Your task to perform on an android device: Go to privacy settings Image 0: 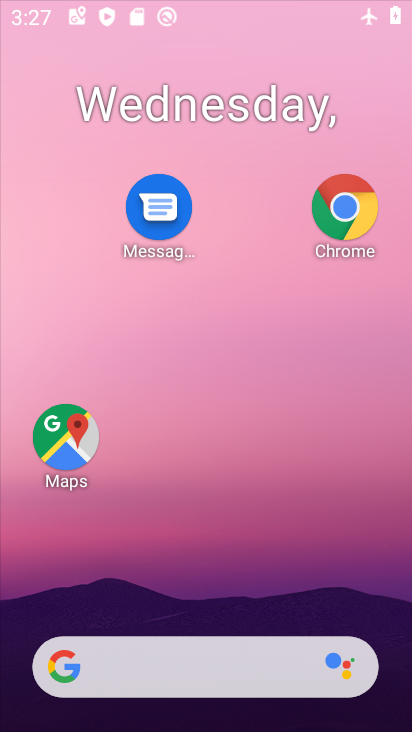
Step 0: click (228, 245)
Your task to perform on an android device: Go to privacy settings Image 1: 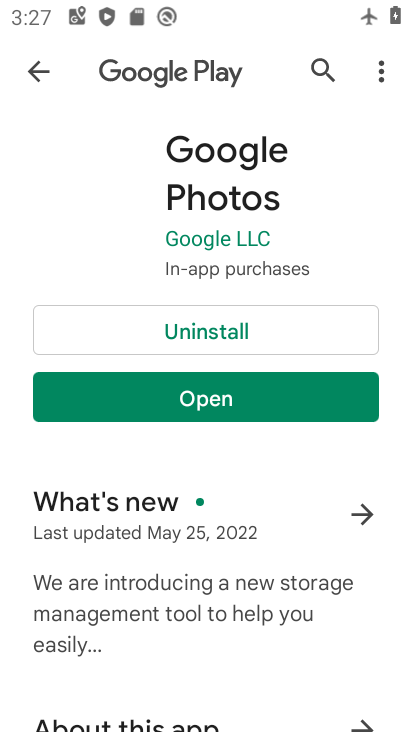
Step 1: drag from (221, 537) to (205, 168)
Your task to perform on an android device: Go to privacy settings Image 2: 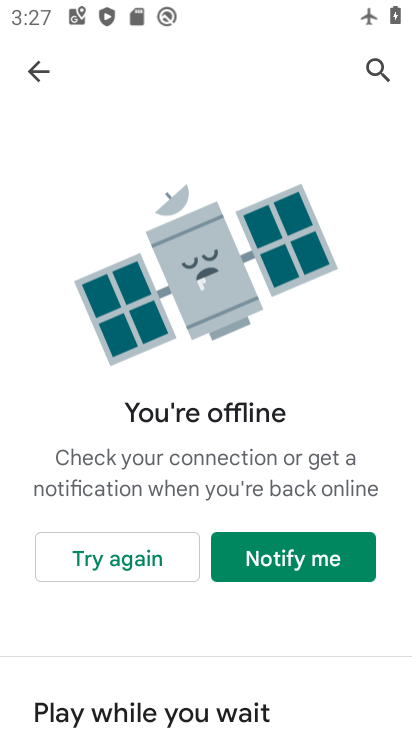
Step 2: press home button
Your task to perform on an android device: Go to privacy settings Image 3: 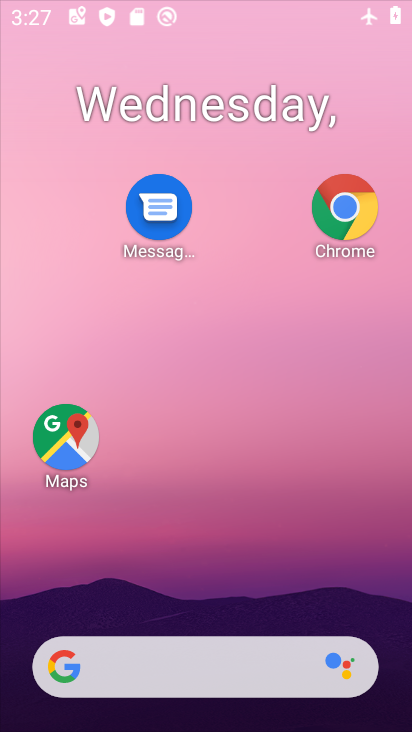
Step 3: drag from (232, 663) to (263, 104)
Your task to perform on an android device: Go to privacy settings Image 4: 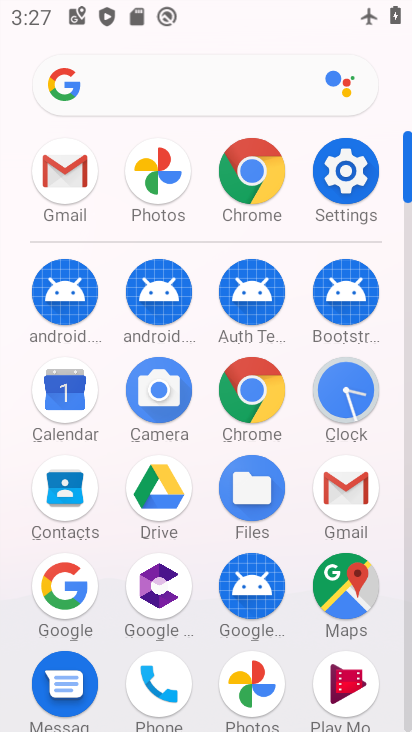
Step 4: click (354, 177)
Your task to perform on an android device: Go to privacy settings Image 5: 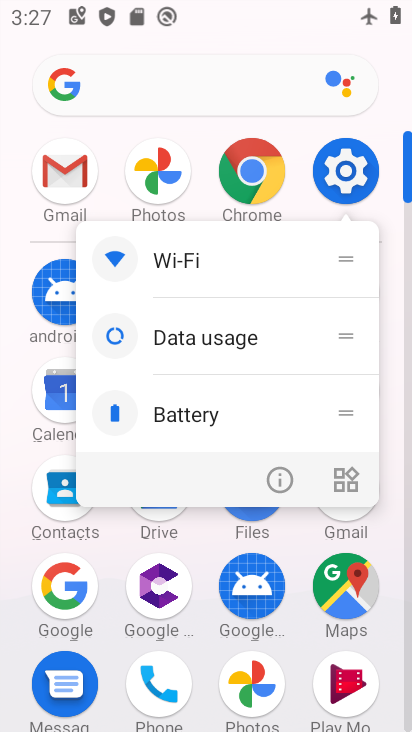
Step 5: click (281, 474)
Your task to perform on an android device: Go to privacy settings Image 6: 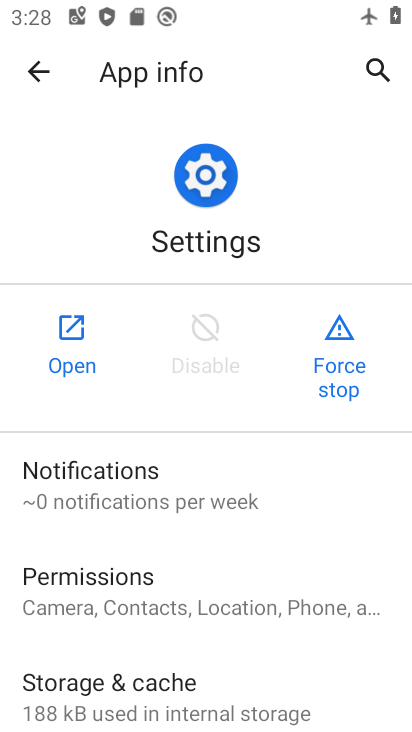
Step 6: click (48, 335)
Your task to perform on an android device: Go to privacy settings Image 7: 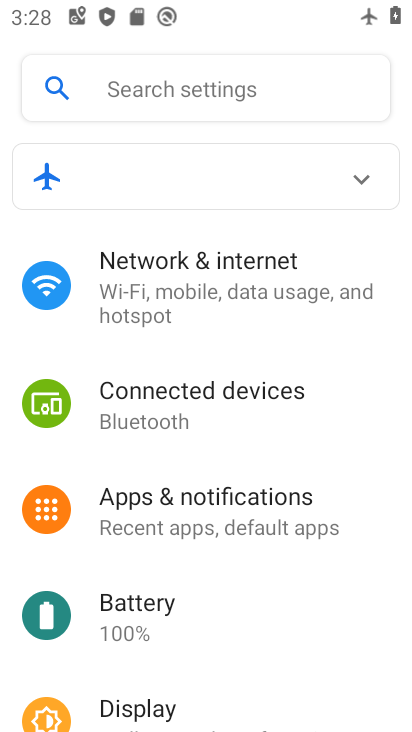
Step 7: drag from (220, 603) to (153, 139)
Your task to perform on an android device: Go to privacy settings Image 8: 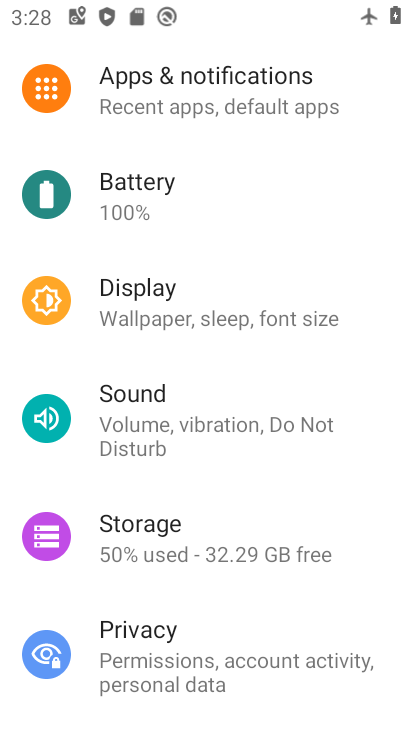
Step 8: drag from (251, 567) to (301, 175)
Your task to perform on an android device: Go to privacy settings Image 9: 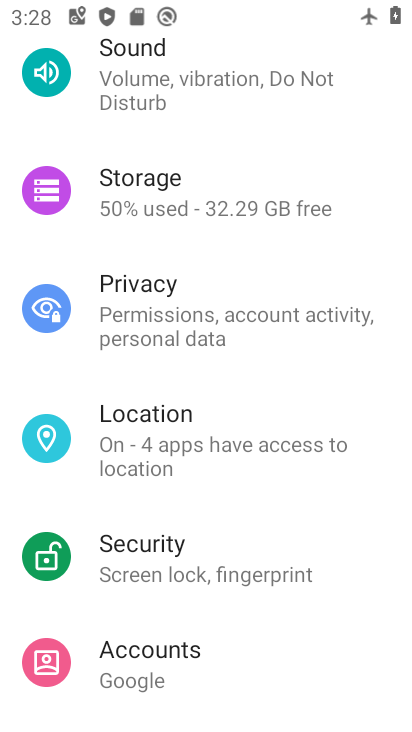
Step 9: click (219, 306)
Your task to perform on an android device: Go to privacy settings Image 10: 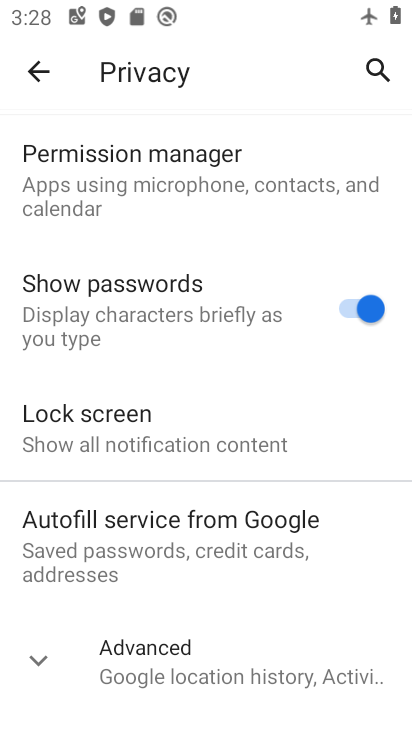
Step 10: task complete